Your task to perform on an android device: turn pop-ups off in chrome Image 0: 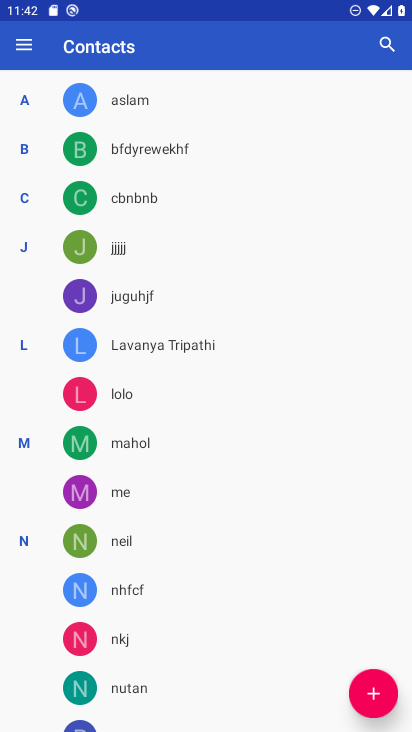
Step 0: press home button
Your task to perform on an android device: turn pop-ups off in chrome Image 1: 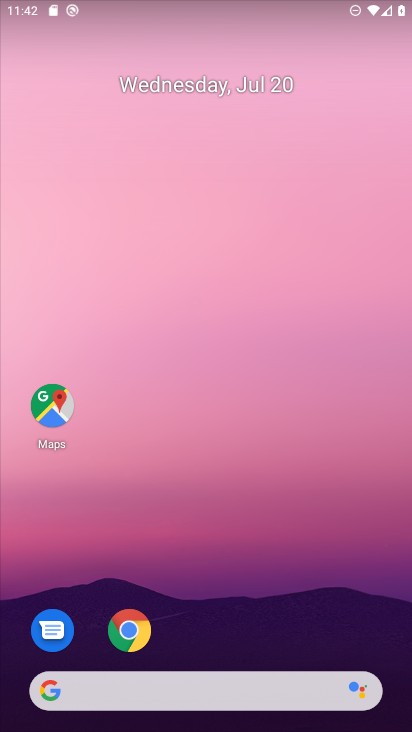
Step 1: drag from (238, 655) to (245, 112)
Your task to perform on an android device: turn pop-ups off in chrome Image 2: 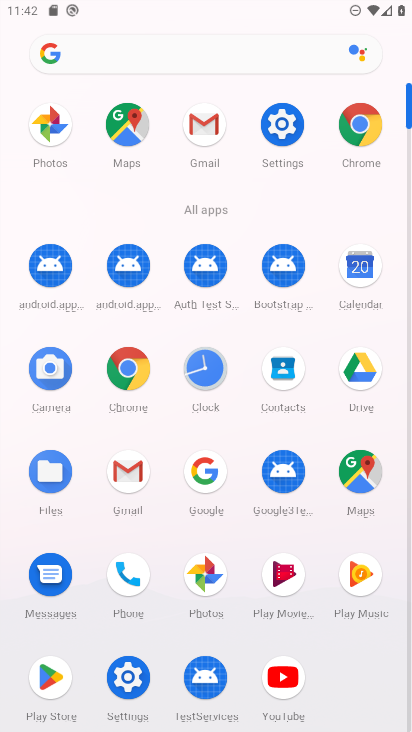
Step 2: click (139, 386)
Your task to perform on an android device: turn pop-ups off in chrome Image 3: 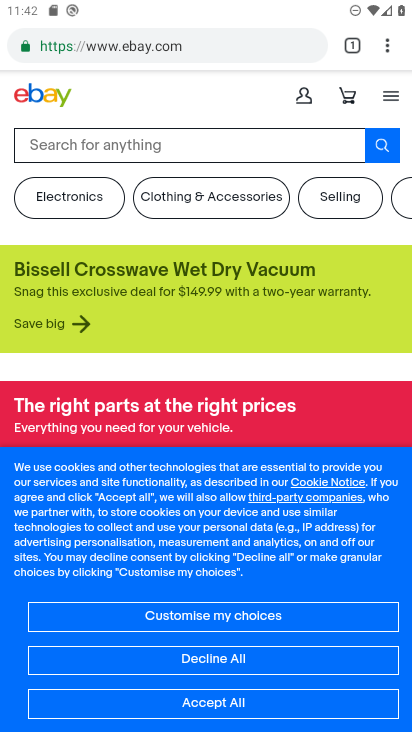
Step 3: click (384, 41)
Your task to perform on an android device: turn pop-ups off in chrome Image 4: 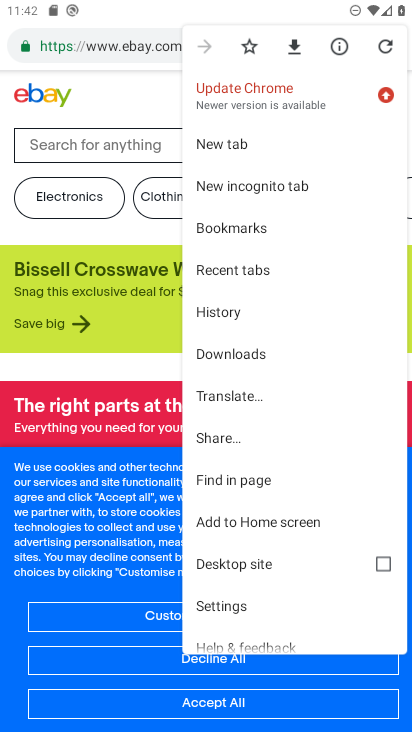
Step 4: click (229, 607)
Your task to perform on an android device: turn pop-ups off in chrome Image 5: 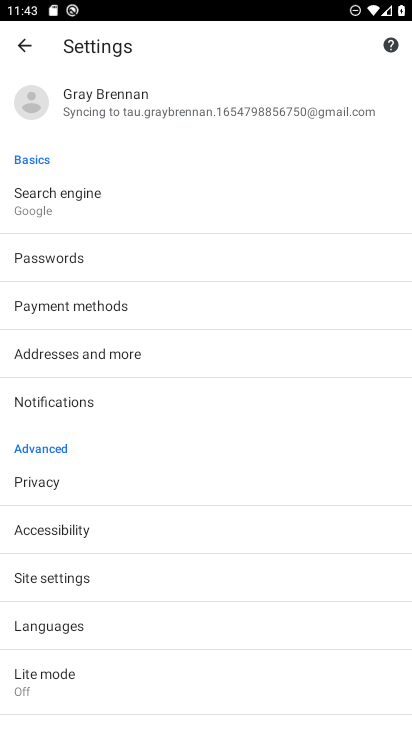
Step 5: click (80, 577)
Your task to perform on an android device: turn pop-ups off in chrome Image 6: 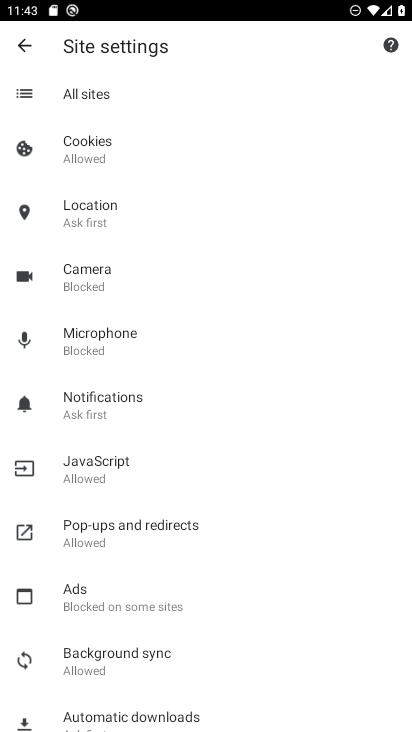
Step 6: click (134, 534)
Your task to perform on an android device: turn pop-ups off in chrome Image 7: 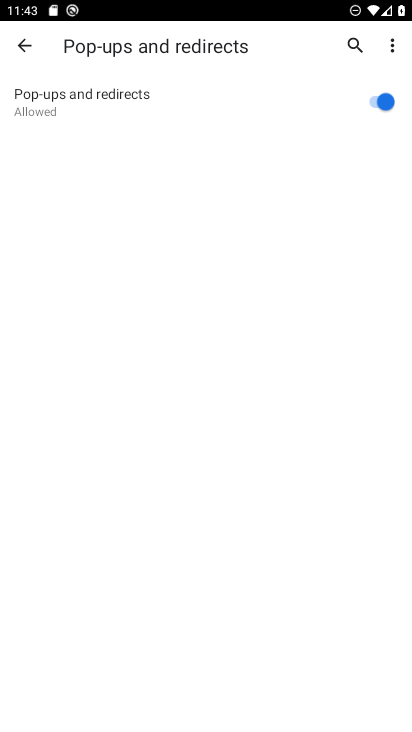
Step 7: click (340, 102)
Your task to perform on an android device: turn pop-ups off in chrome Image 8: 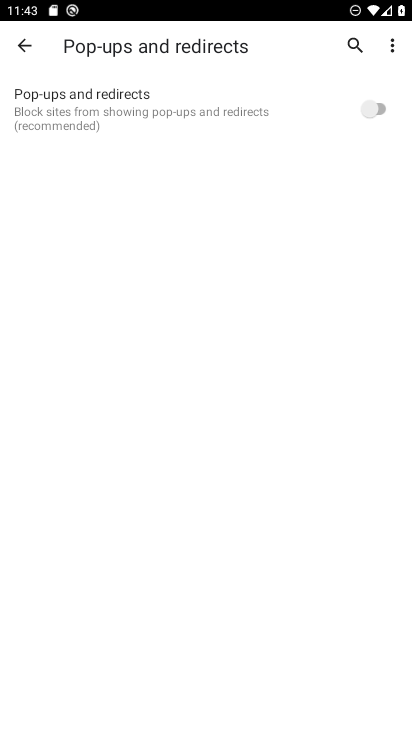
Step 8: task complete